Your task to perform on an android device: turn notification dots off Image 0: 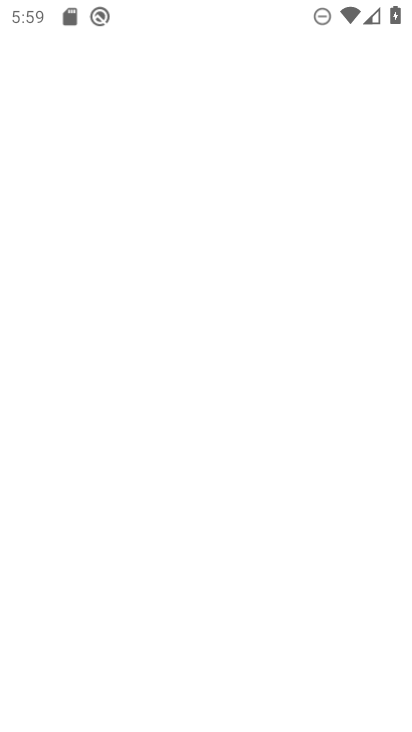
Step 0: press home button
Your task to perform on an android device: turn notification dots off Image 1: 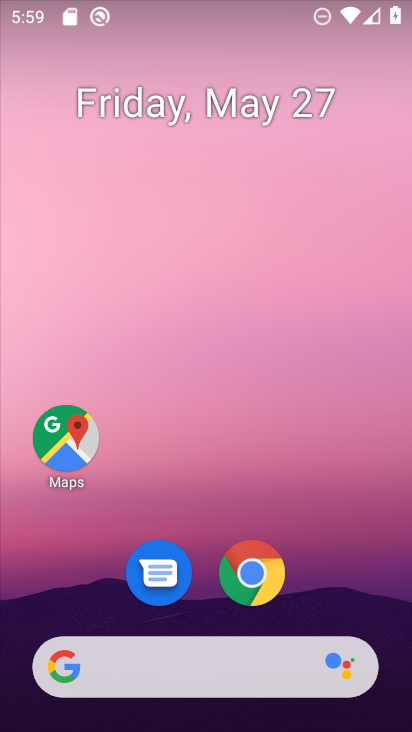
Step 1: drag from (208, 614) to (263, 70)
Your task to perform on an android device: turn notification dots off Image 2: 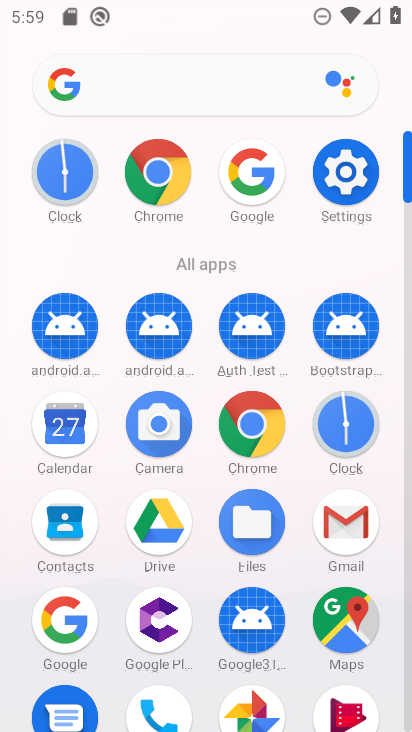
Step 2: click (340, 173)
Your task to perform on an android device: turn notification dots off Image 3: 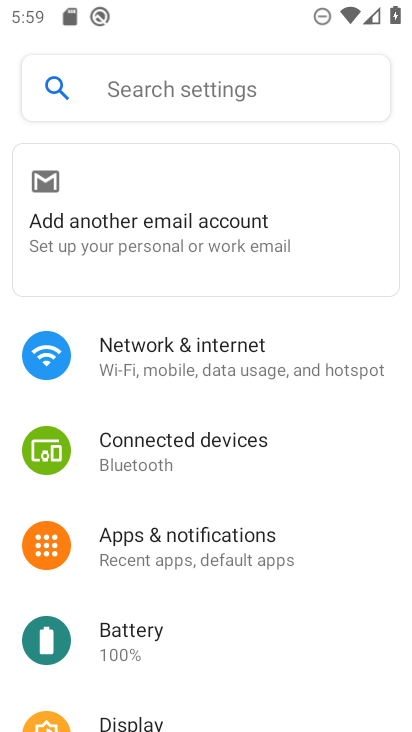
Step 3: drag from (227, 638) to (268, 125)
Your task to perform on an android device: turn notification dots off Image 4: 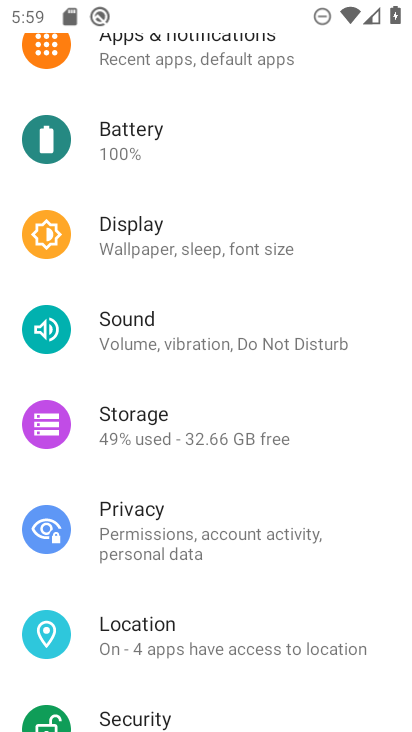
Step 4: click (197, 50)
Your task to perform on an android device: turn notification dots off Image 5: 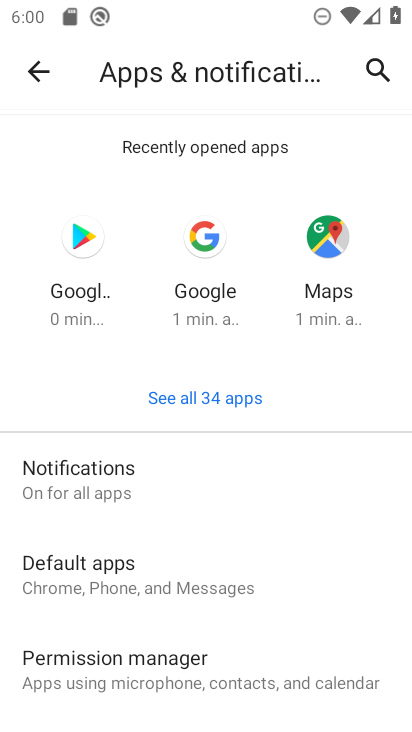
Step 5: click (156, 475)
Your task to perform on an android device: turn notification dots off Image 6: 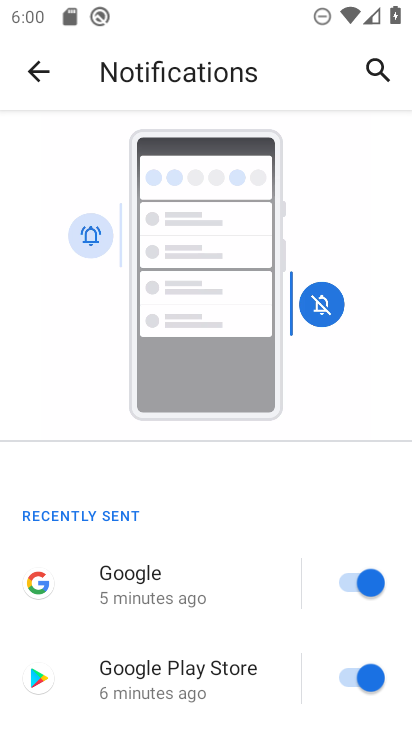
Step 6: drag from (267, 680) to (276, 160)
Your task to perform on an android device: turn notification dots off Image 7: 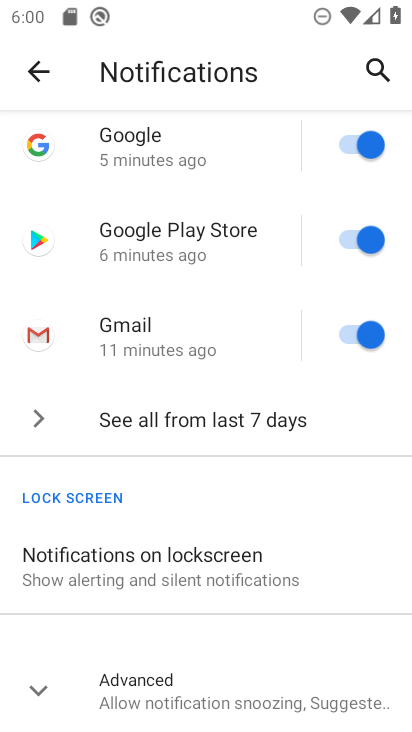
Step 7: click (37, 685)
Your task to perform on an android device: turn notification dots off Image 8: 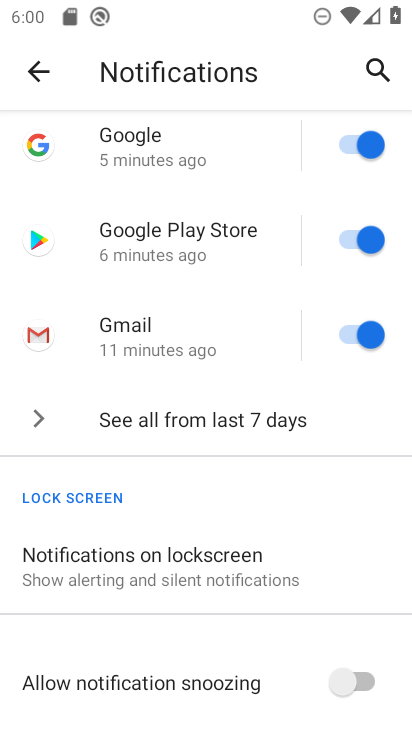
Step 8: drag from (274, 678) to (292, 121)
Your task to perform on an android device: turn notification dots off Image 9: 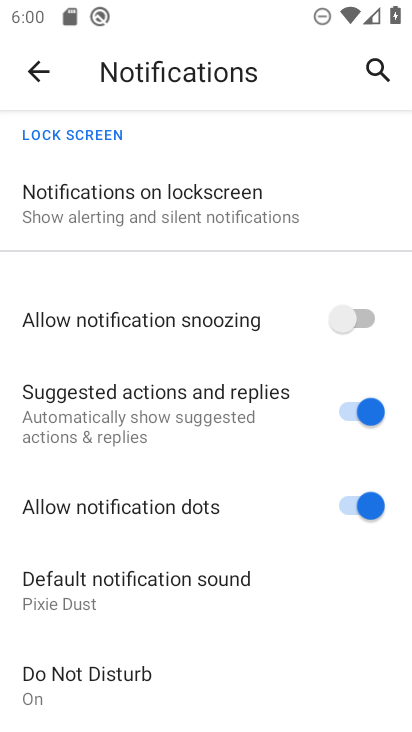
Step 9: click (352, 499)
Your task to perform on an android device: turn notification dots off Image 10: 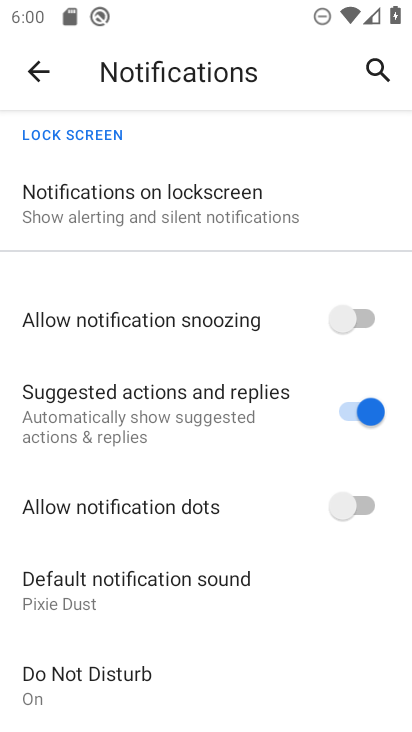
Step 10: task complete